Your task to perform on an android device: change alarm snooze length Image 0: 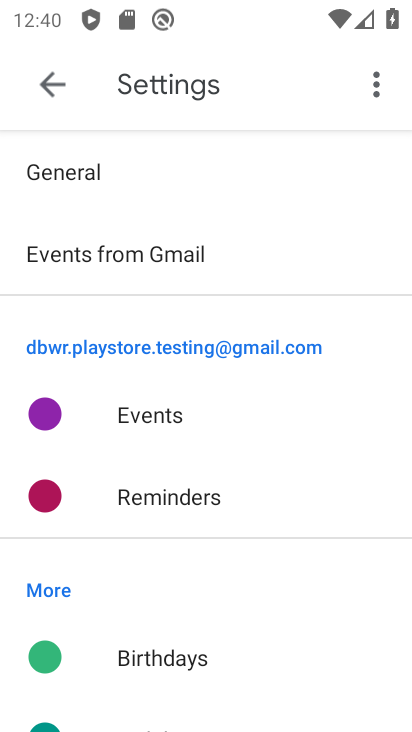
Step 0: press home button
Your task to perform on an android device: change alarm snooze length Image 1: 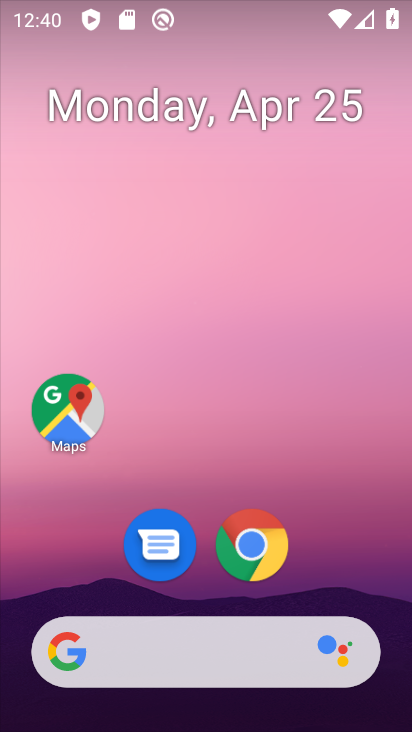
Step 1: drag from (347, 527) to (133, 125)
Your task to perform on an android device: change alarm snooze length Image 2: 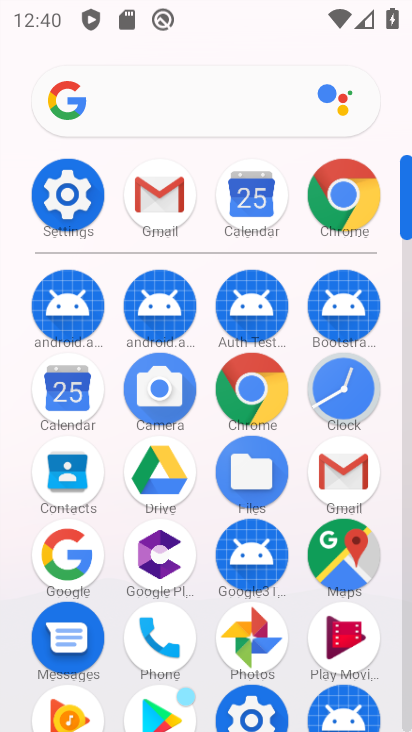
Step 2: click (336, 393)
Your task to perform on an android device: change alarm snooze length Image 3: 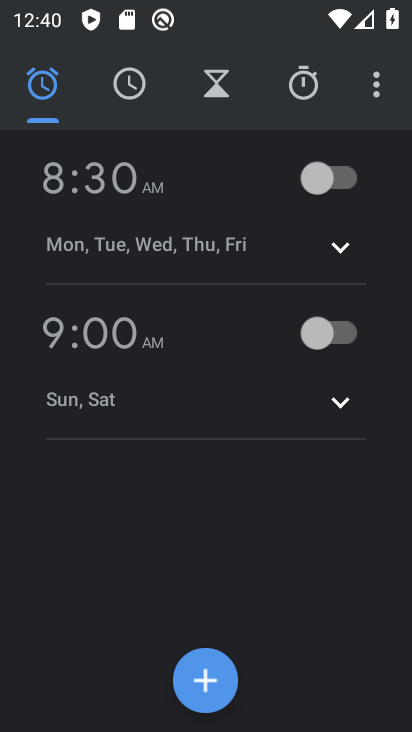
Step 3: click (371, 89)
Your task to perform on an android device: change alarm snooze length Image 4: 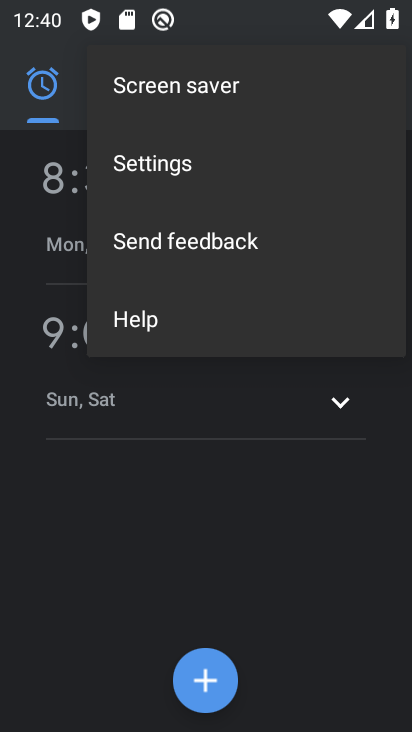
Step 4: click (149, 163)
Your task to perform on an android device: change alarm snooze length Image 5: 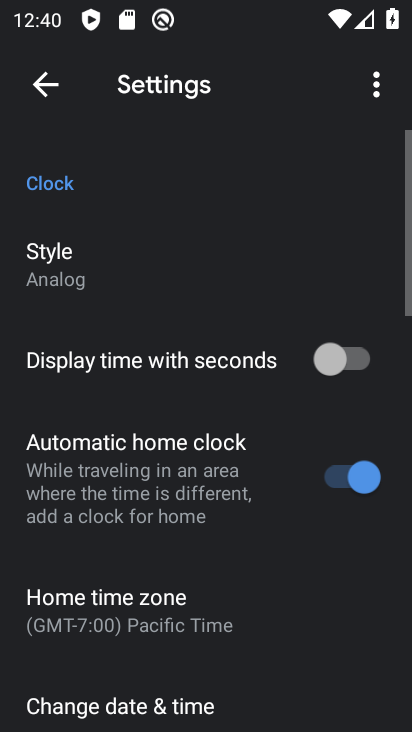
Step 5: drag from (178, 633) to (144, 189)
Your task to perform on an android device: change alarm snooze length Image 6: 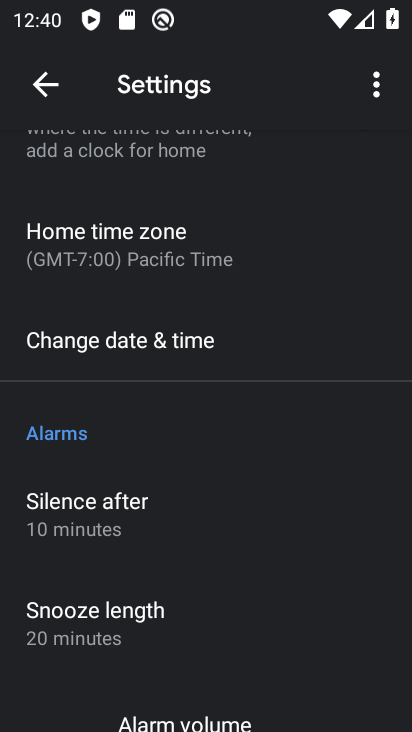
Step 6: click (121, 618)
Your task to perform on an android device: change alarm snooze length Image 7: 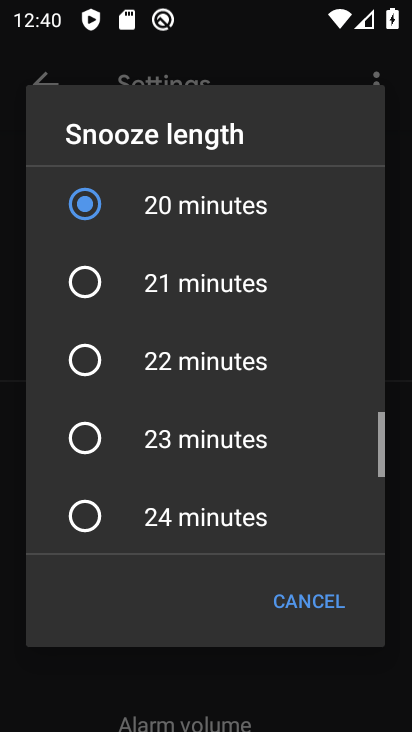
Step 7: click (176, 524)
Your task to perform on an android device: change alarm snooze length Image 8: 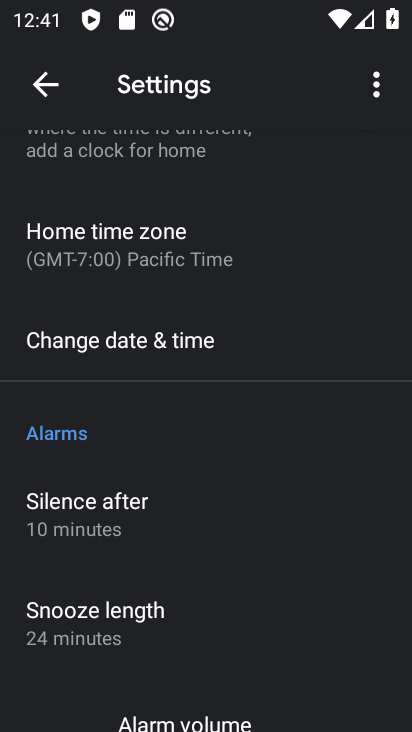
Step 8: task complete